Your task to perform on an android device: Open notification settings Image 0: 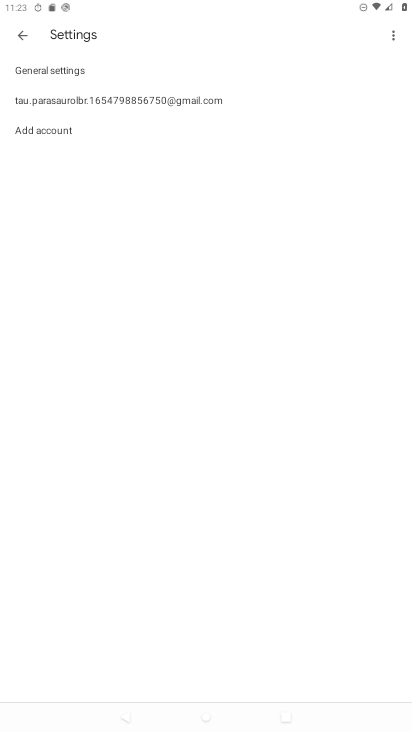
Step 0: press home button
Your task to perform on an android device: Open notification settings Image 1: 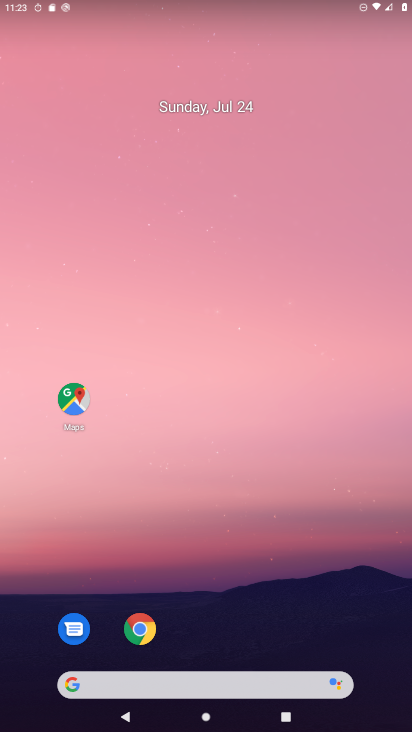
Step 1: drag from (247, 382) to (348, 58)
Your task to perform on an android device: Open notification settings Image 2: 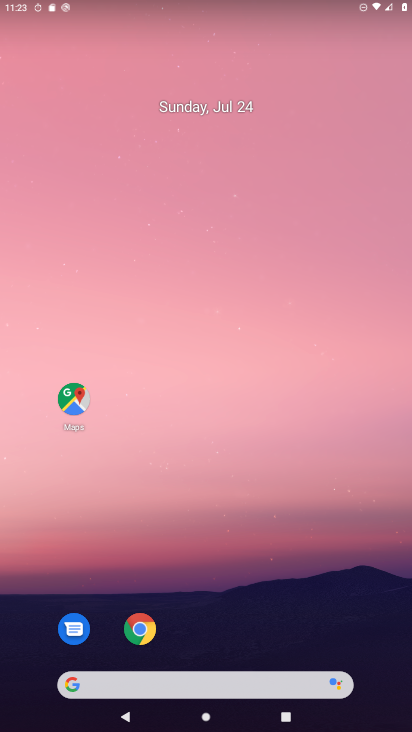
Step 2: drag from (247, 390) to (218, 166)
Your task to perform on an android device: Open notification settings Image 3: 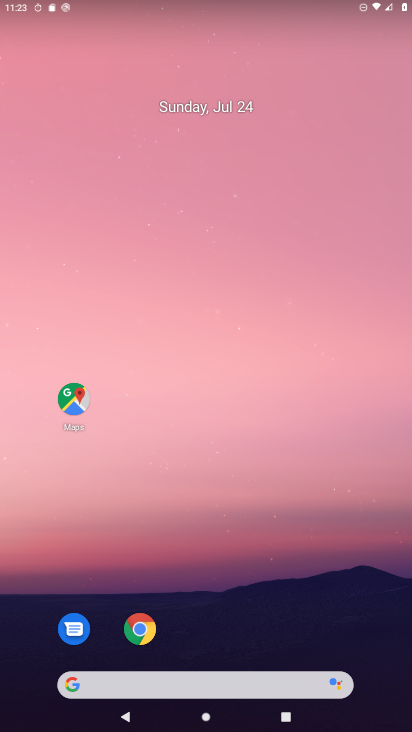
Step 3: drag from (270, 532) to (297, 23)
Your task to perform on an android device: Open notification settings Image 4: 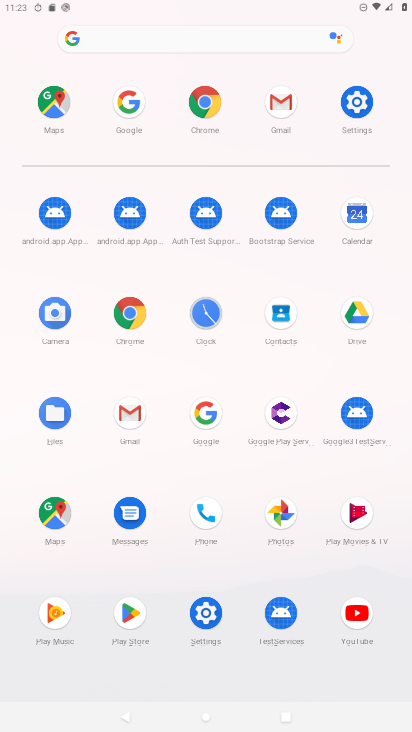
Step 4: click (373, 108)
Your task to perform on an android device: Open notification settings Image 5: 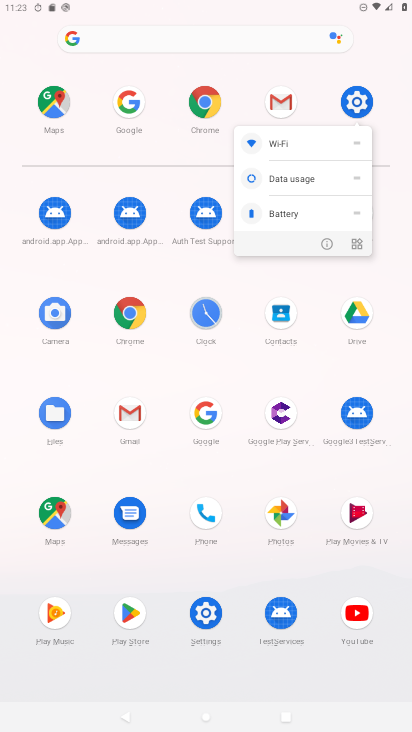
Step 5: click (358, 105)
Your task to perform on an android device: Open notification settings Image 6: 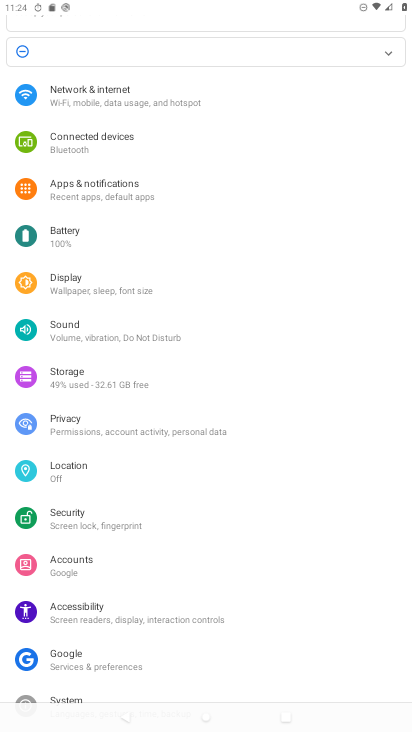
Step 6: click (127, 191)
Your task to perform on an android device: Open notification settings Image 7: 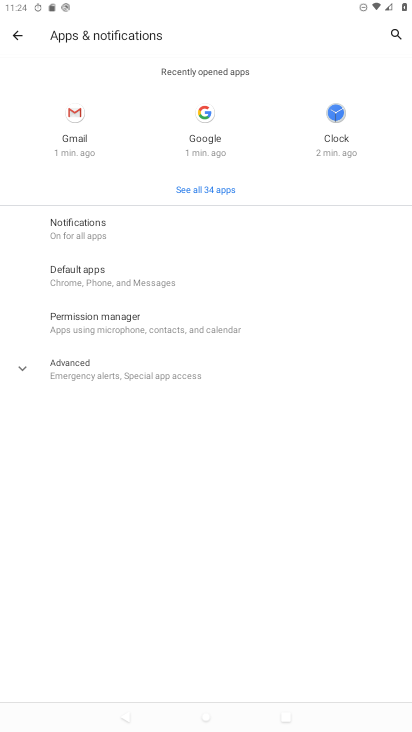
Step 7: click (177, 219)
Your task to perform on an android device: Open notification settings Image 8: 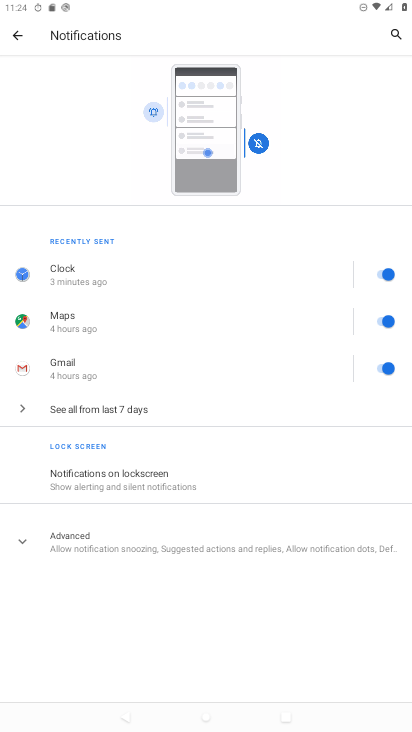
Step 8: task complete